Your task to perform on an android device: Open calendar and show me the fourth week of next month Image 0: 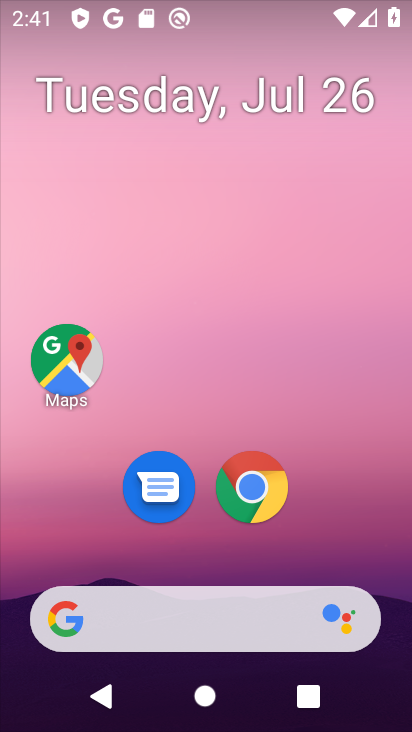
Step 0: drag from (94, 533) to (245, 16)
Your task to perform on an android device: Open calendar and show me the fourth week of next month Image 1: 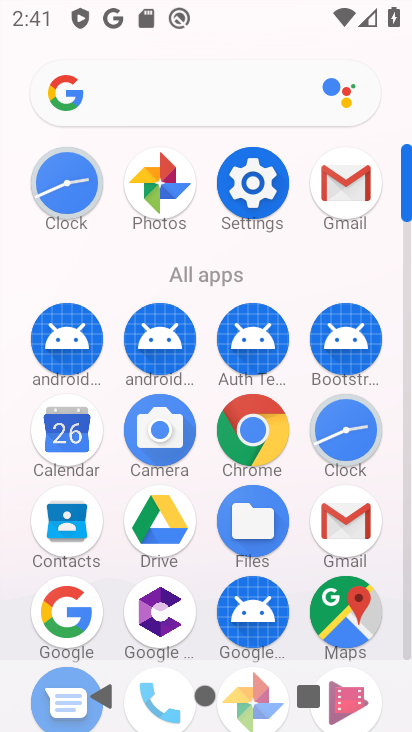
Step 1: click (68, 436)
Your task to perform on an android device: Open calendar and show me the fourth week of next month Image 2: 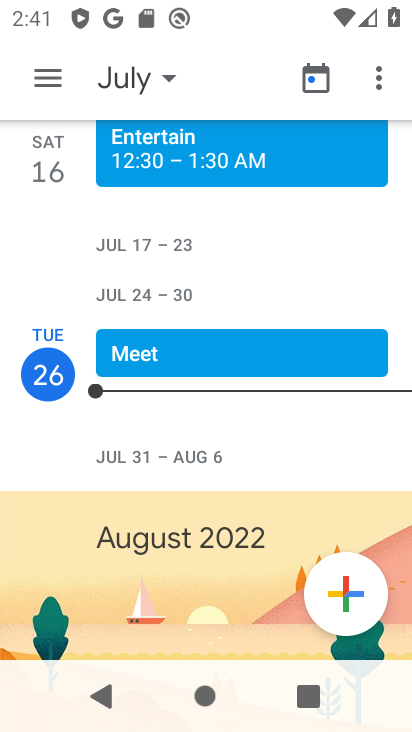
Step 2: click (147, 84)
Your task to perform on an android device: Open calendar and show me the fourth week of next month Image 3: 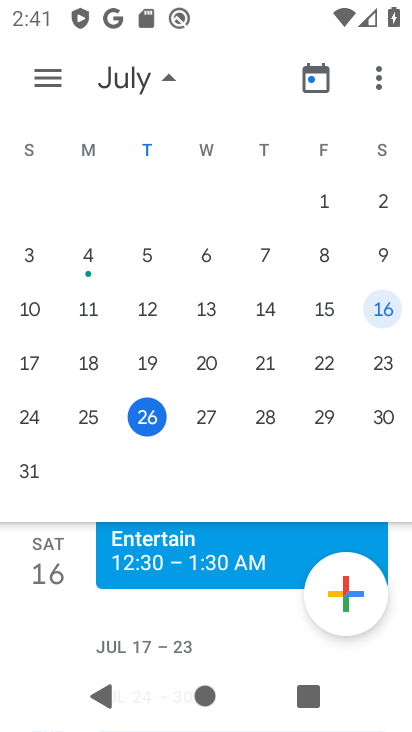
Step 3: drag from (387, 311) to (27, 292)
Your task to perform on an android device: Open calendar and show me the fourth week of next month Image 4: 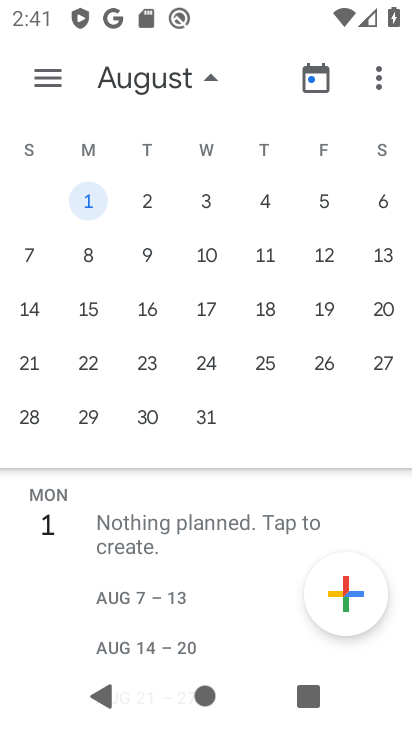
Step 4: click (80, 360)
Your task to perform on an android device: Open calendar and show me the fourth week of next month Image 5: 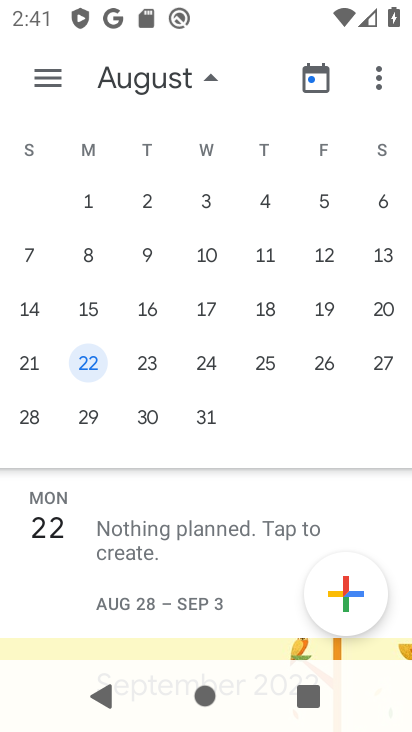
Step 5: task complete